Your task to perform on an android device: choose inbox layout in the gmail app Image 0: 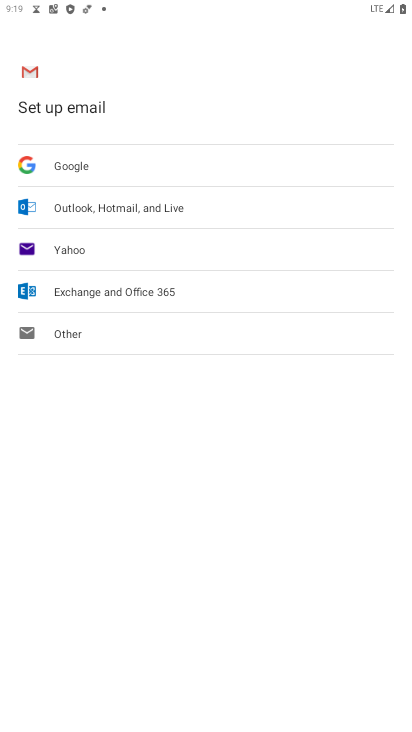
Step 0: press home button
Your task to perform on an android device: choose inbox layout in the gmail app Image 1: 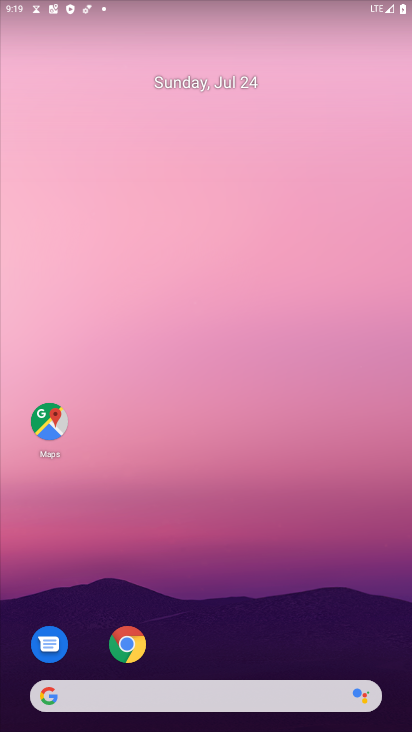
Step 1: drag from (195, 608) to (241, 60)
Your task to perform on an android device: choose inbox layout in the gmail app Image 2: 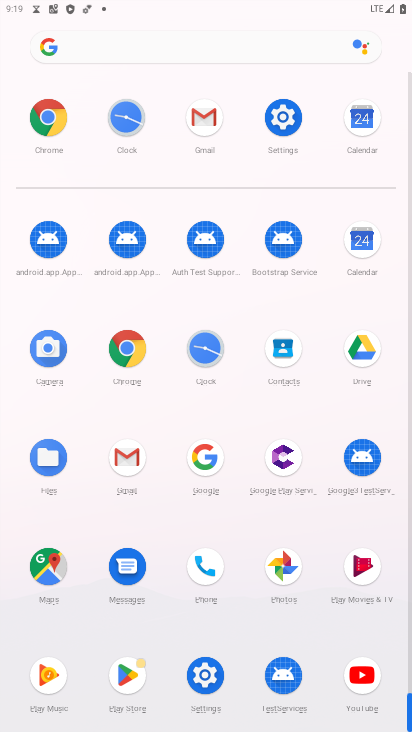
Step 2: click (127, 463)
Your task to perform on an android device: choose inbox layout in the gmail app Image 3: 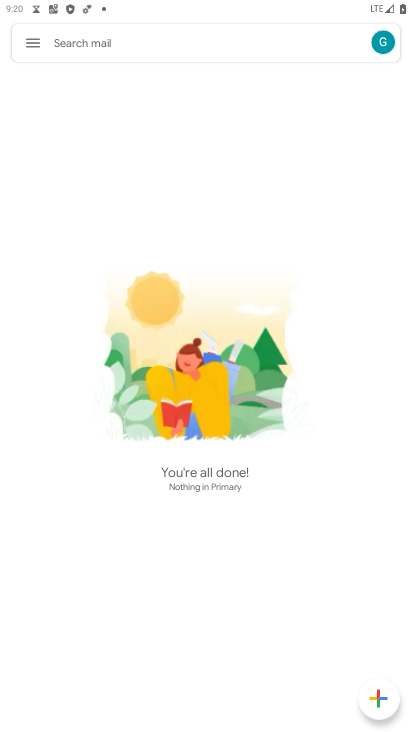
Step 3: click (40, 40)
Your task to perform on an android device: choose inbox layout in the gmail app Image 4: 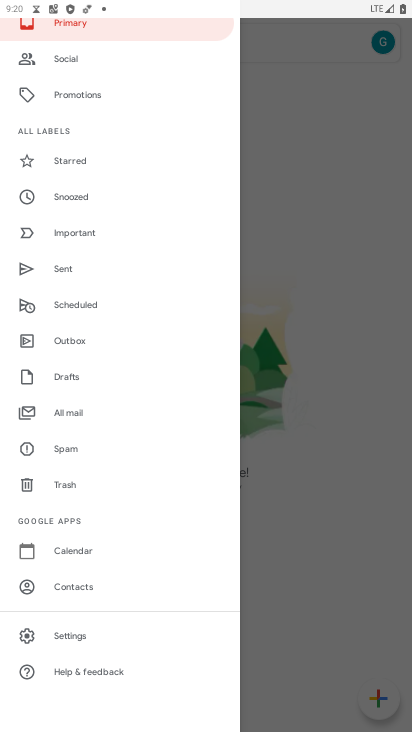
Step 4: click (72, 632)
Your task to perform on an android device: choose inbox layout in the gmail app Image 5: 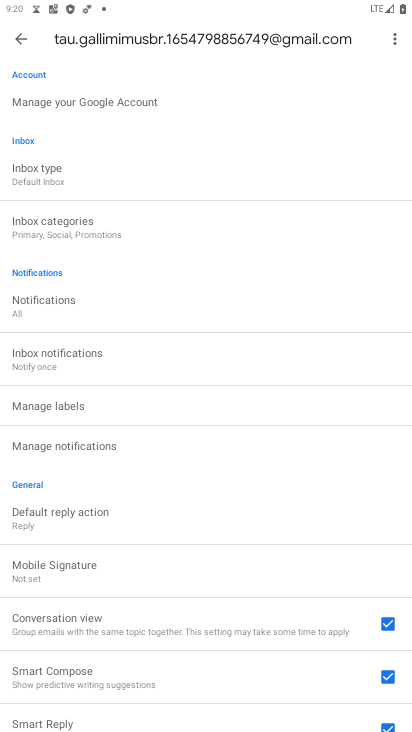
Step 5: click (79, 169)
Your task to perform on an android device: choose inbox layout in the gmail app Image 6: 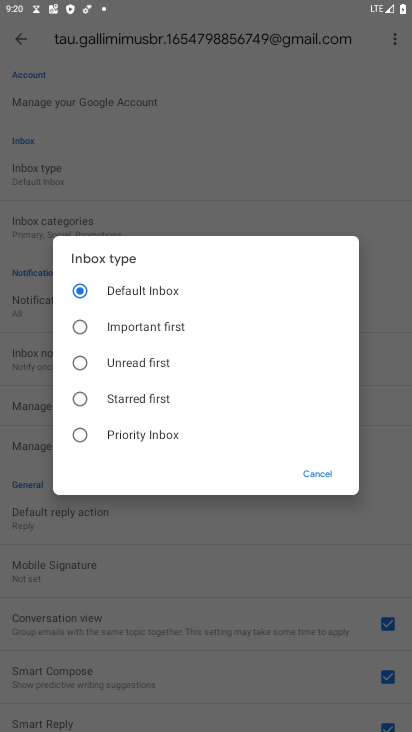
Step 6: click (131, 429)
Your task to perform on an android device: choose inbox layout in the gmail app Image 7: 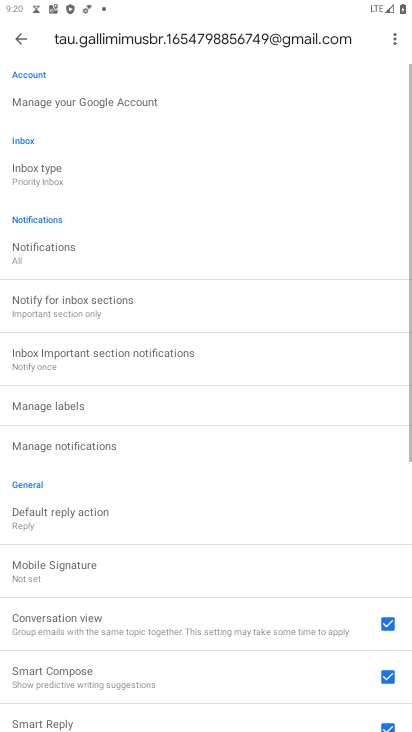
Step 7: task complete